Your task to perform on an android device: Clear all items from cart on walmart.com. Add "usb-a" to the cart on walmart.com, then select checkout. Image 0: 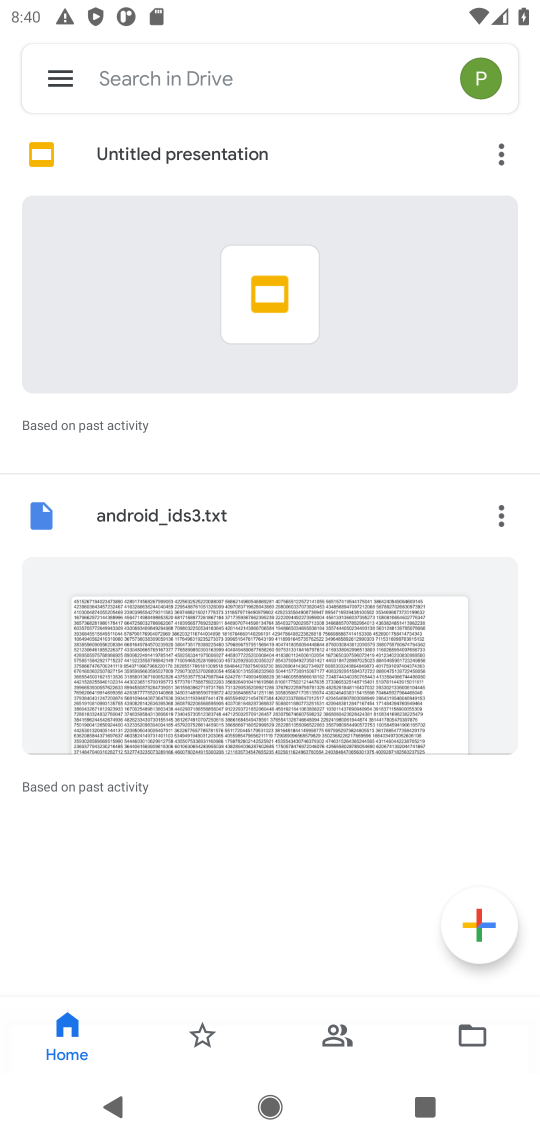
Step 0: press home button
Your task to perform on an android device: Clear all items from cart on walmart.com. Add "usb-a" to the cart on walmart.com, then select checkout. Image 1: 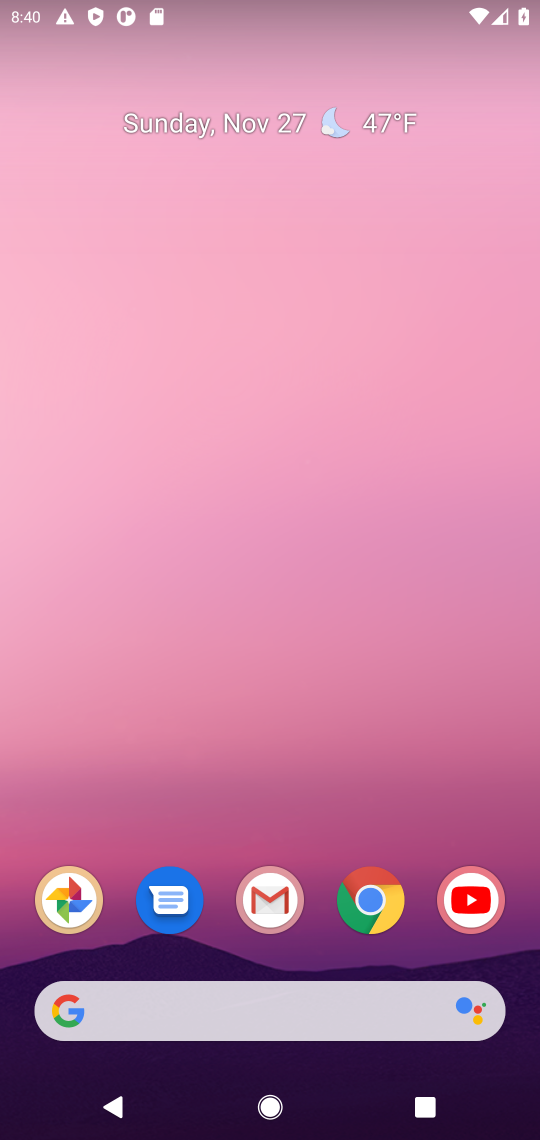
Step 1: click (368, 890)
Your task to perform on an android device: Clear all items from cart on walmart.com. Add "usb-a" to the cart on walmart.com, then select checkout. Image 2: 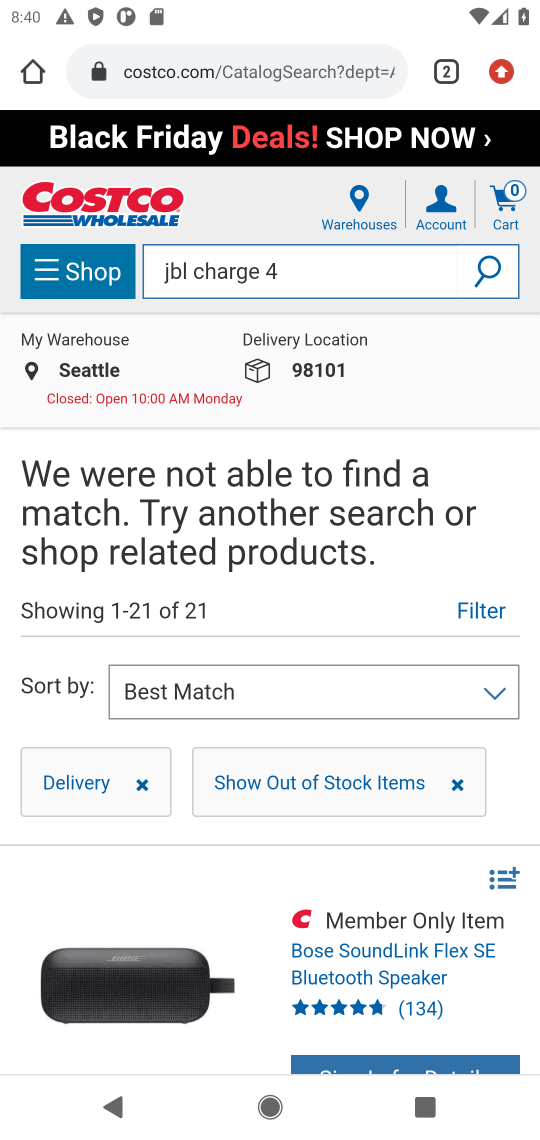
Step 2: click (198, 73)
Your task to perform on an android device: Clear all items from cart on walmart.com. Add "usb-a" to the cart on walmart.com, then select checkout. Image 3: 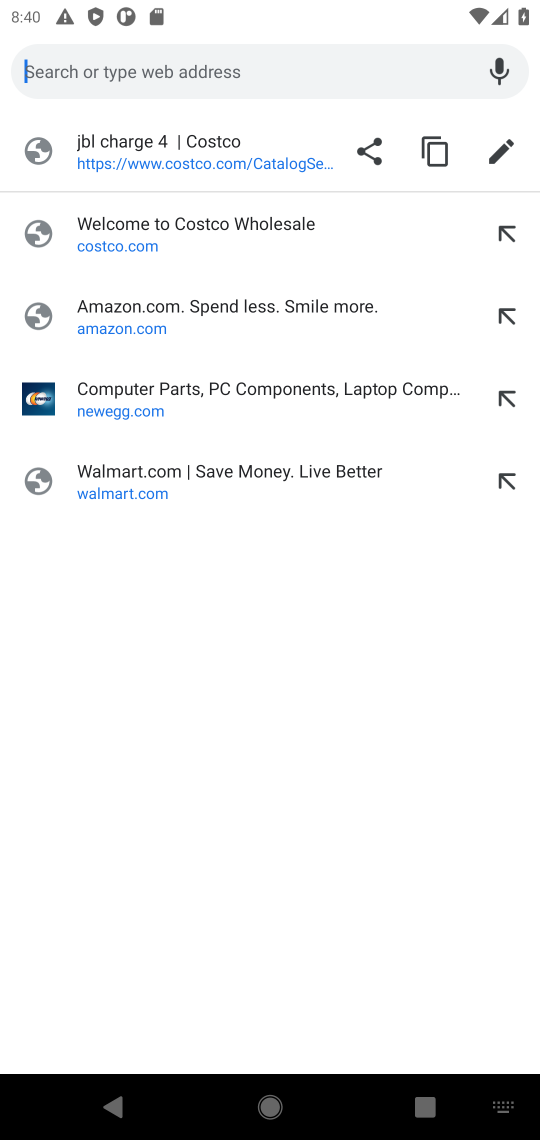
Step 3: click (132, 473)
Your task to perform on an android device: Clear all items from cart on walmart.com. Add "usb-a" to the cart on walmart.com, then select checkout. Image 4: 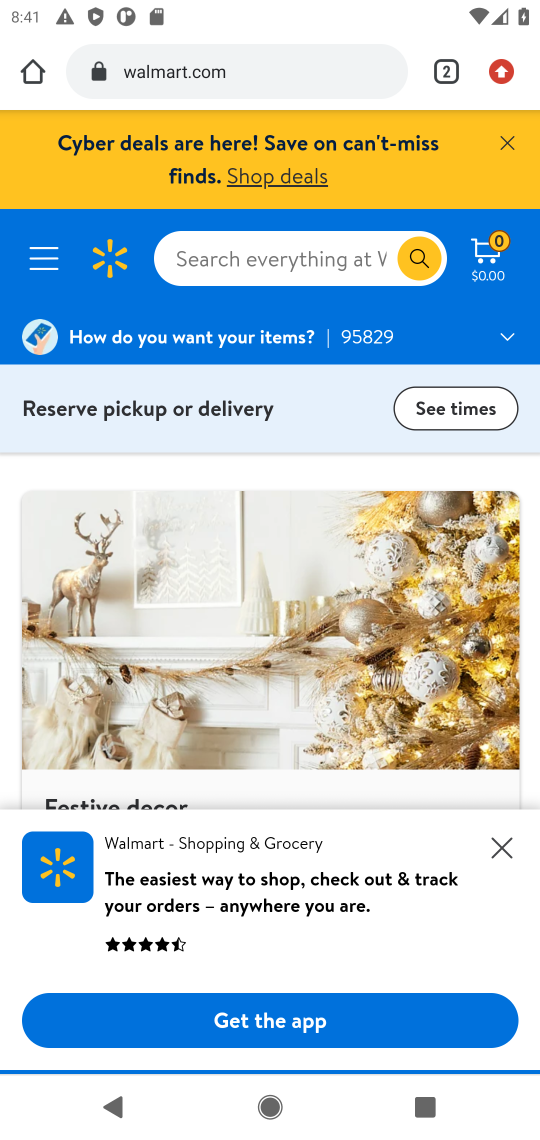
Step 4: click (486, 252)
Your task to perform on an android device: Clear all items from cart on walmart.com. Add "usb-a" to the cart on walmart.com, then select checkout. Image 5: 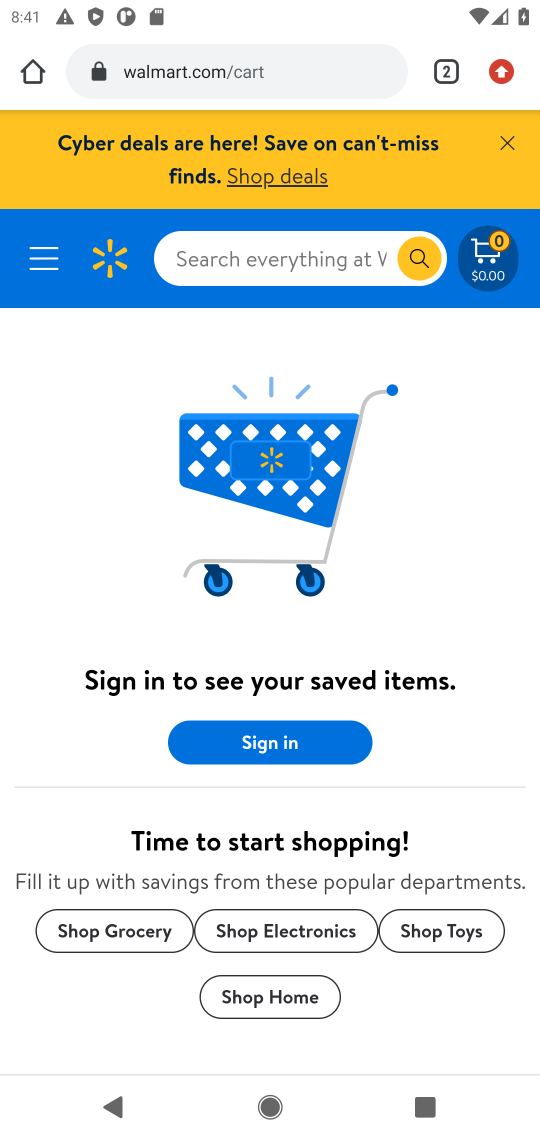
Step 5: drag from (431, 674) to (445, 551)
Your task to perform on an android device: Clear all items from cart on walmart.com. Add "usb-a" to the cart on walmart.com, then select checkout. Image 6: 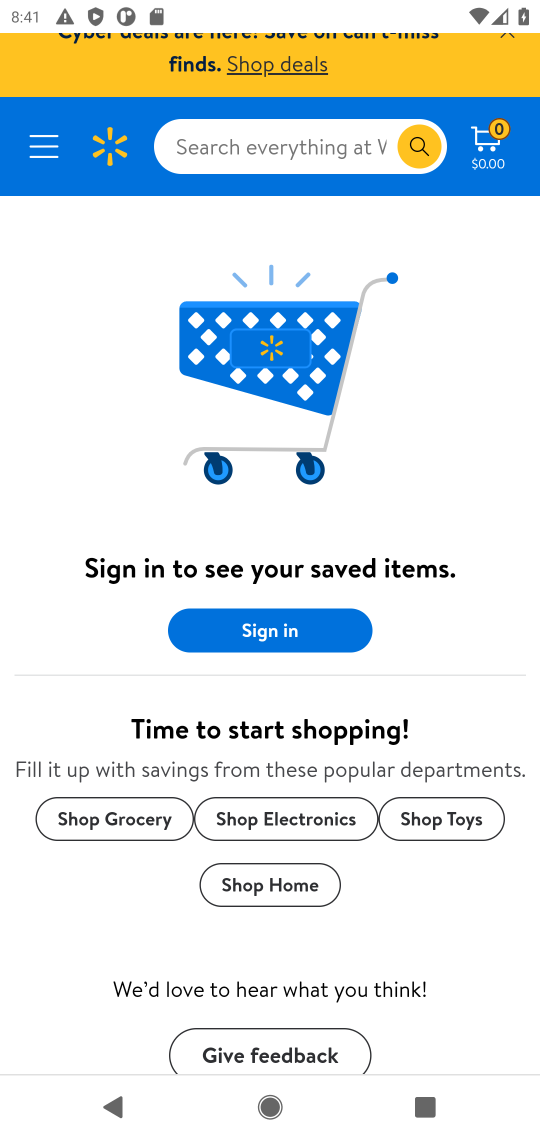
Step 6: click (249, 149)
Your task to perform on an android device: Clear all items from cart on walmart.com. Add "usb-a" to the cart on walmart.com, then select checkout. Image 7: 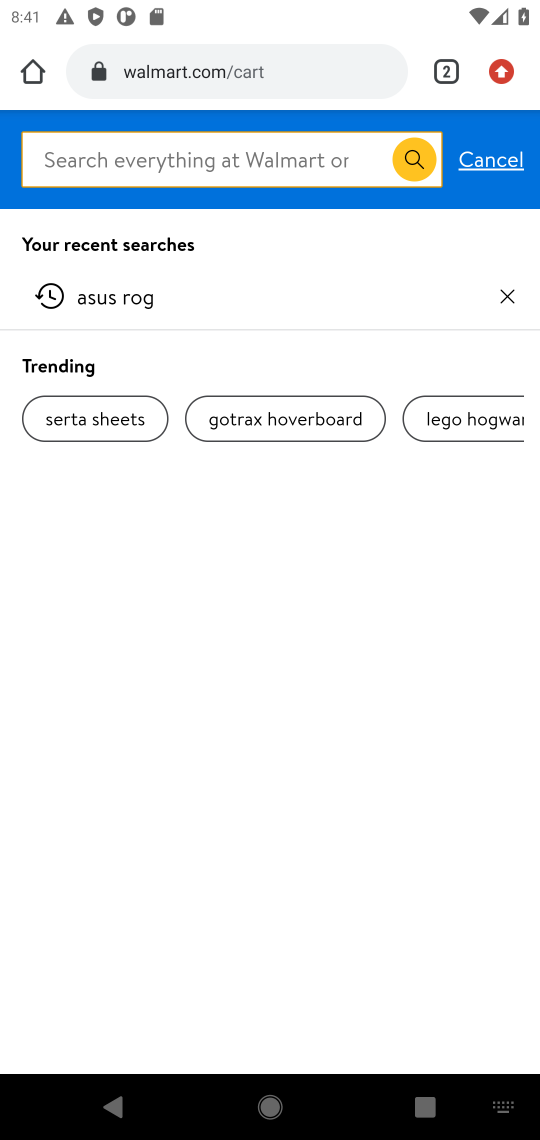
Step 7: type "usb-a"
Your task to perform on an android device: Clear all items from cart on walmart.com. Add "usb-a" to the cart on walmart.com, then select checkout. Image 8: 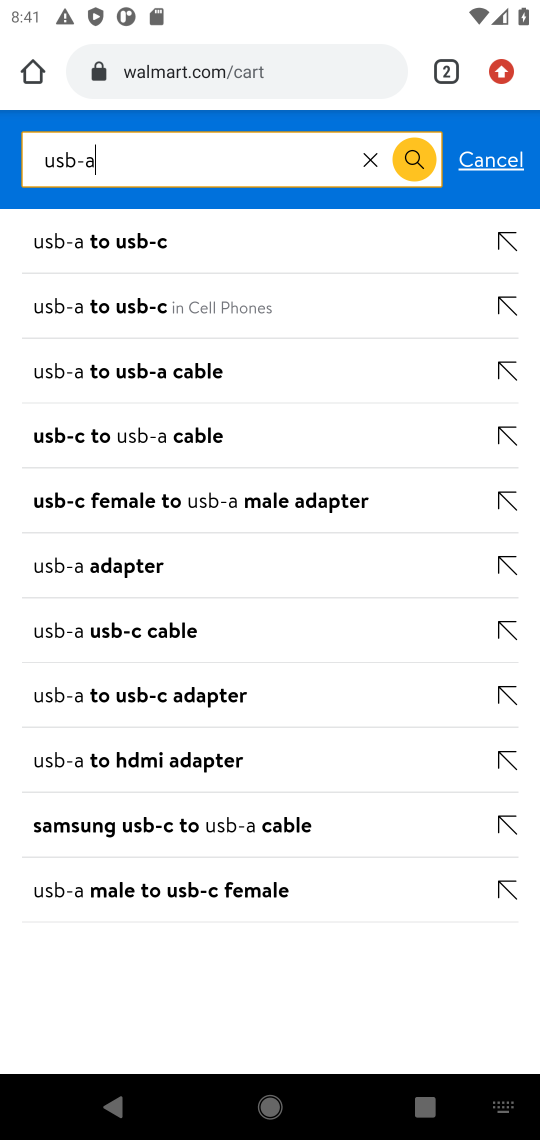
Step 8: click (418, 159)
Your task to perform on an android device: Clear all items from cart on walmart.com. Add "usb-a" to the cart on walmart.com, then select checkout. Image 9: 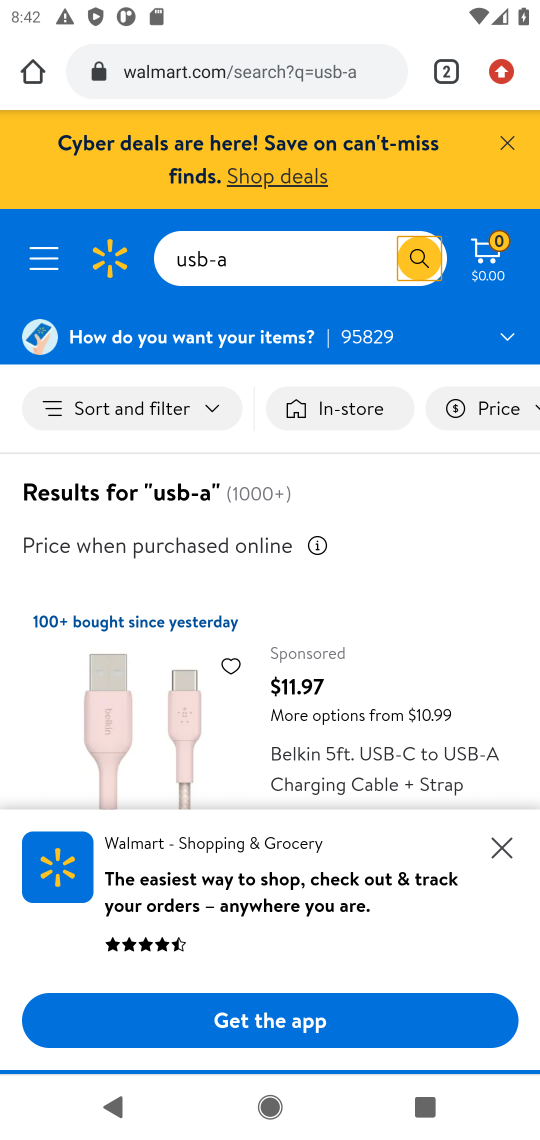
Step 9: drag from (185, 753) to (170, 400)
Your task to perform on an android device: Clear all items from cart on walmart.com. Add "usb-a" to the cart on walmart.com, then select checkout. Image 10: 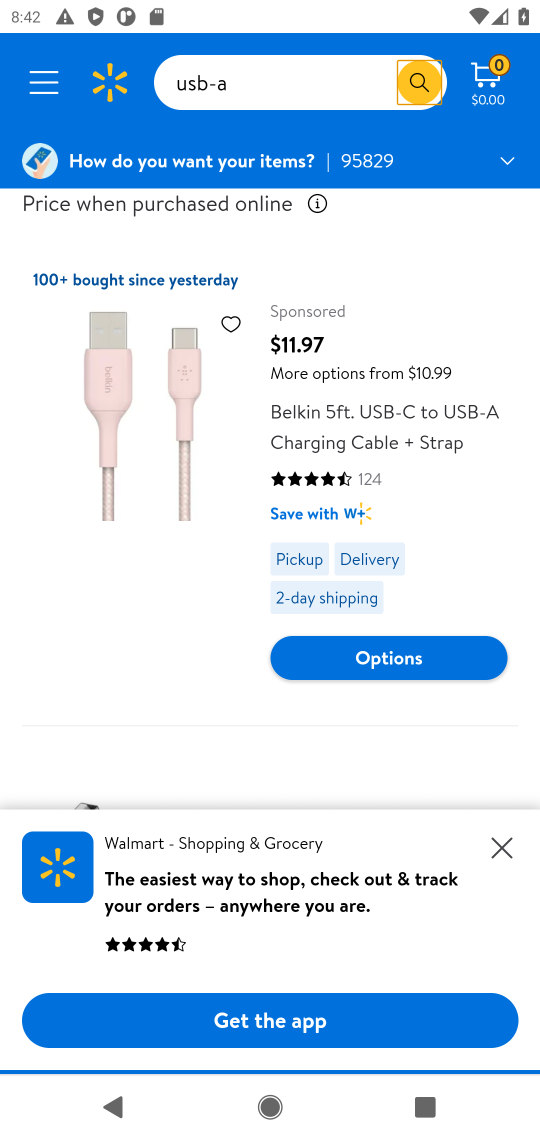
Step 10: click (206, 454)
Your task to perform on an android device: Clear all items from cart on walmart.com. Add "usb-a" to the cart on walmart.com, then select checkout. Image 11: 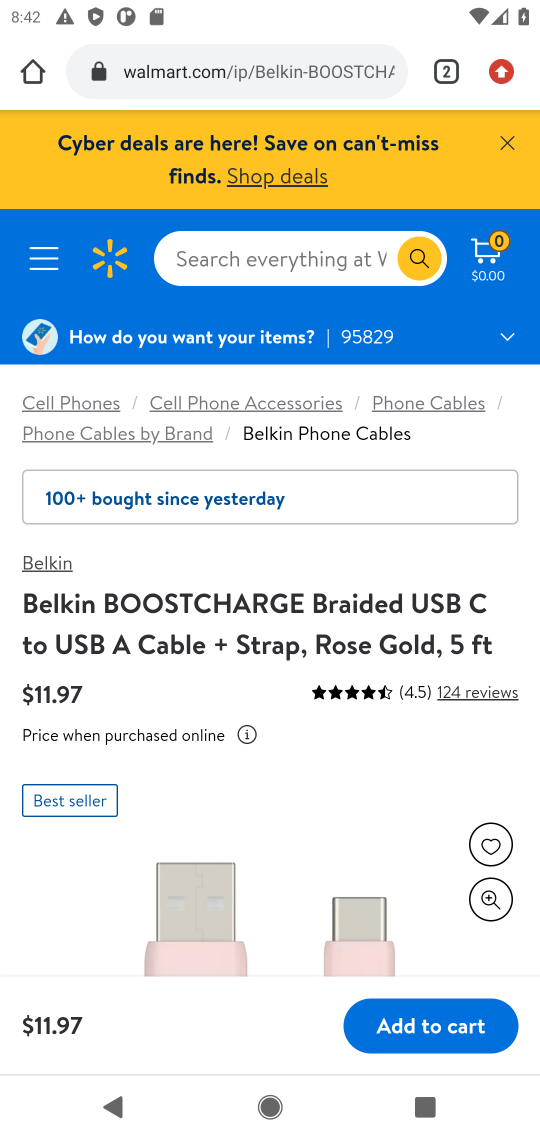
Step 11: drag from (253, 767) to (276, 370)
Your task to perform on an android device: Clear all items from cart on walmart.com. Add "usb-a" to the cart on walmart.com, then select checkout. Image 12: 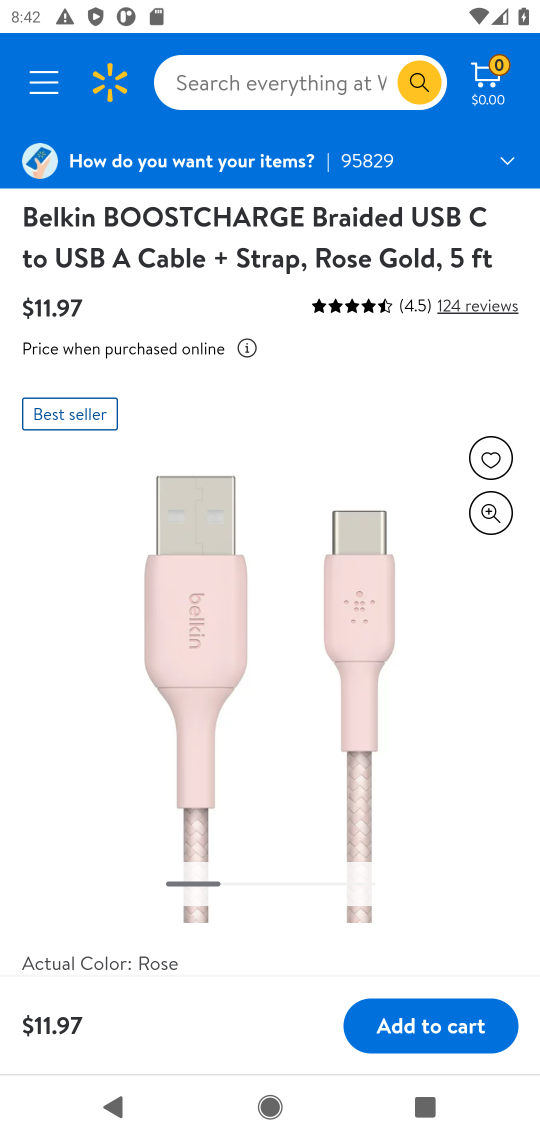
Step 12: click (453, 1024)
Your task to perform on an android device: Clear all items from cart on walmart.com. Add "usb-a" to the cart on walmart.com, then select checkout. Image 13: 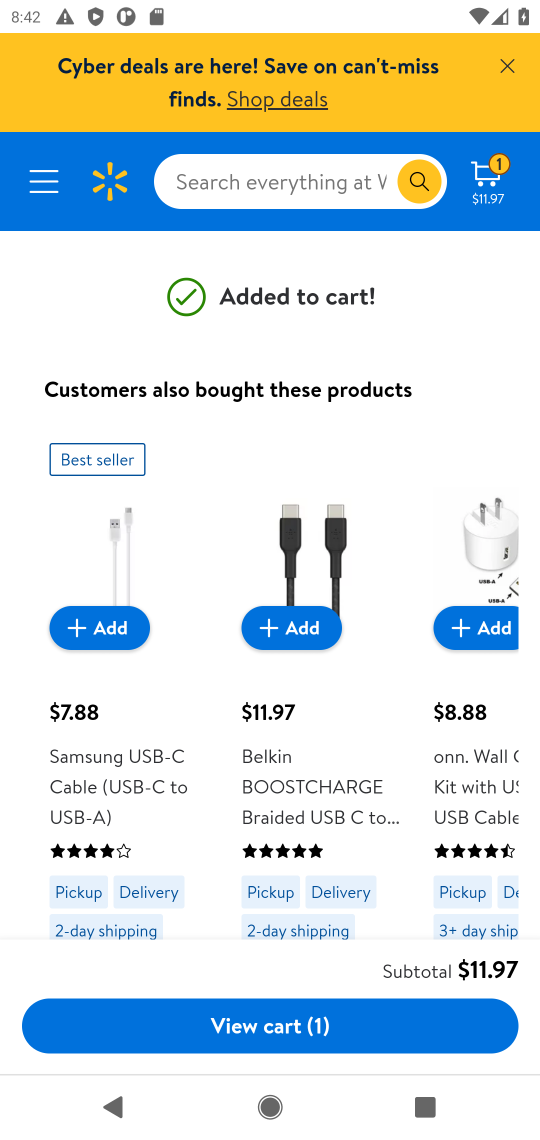
Step 13: click (265, 1028)
Your task to perform on an android device: Clear all items from cart on walmart.com. Add "usb-a" to the cart on walmart.com, then select checkout. Image 14: 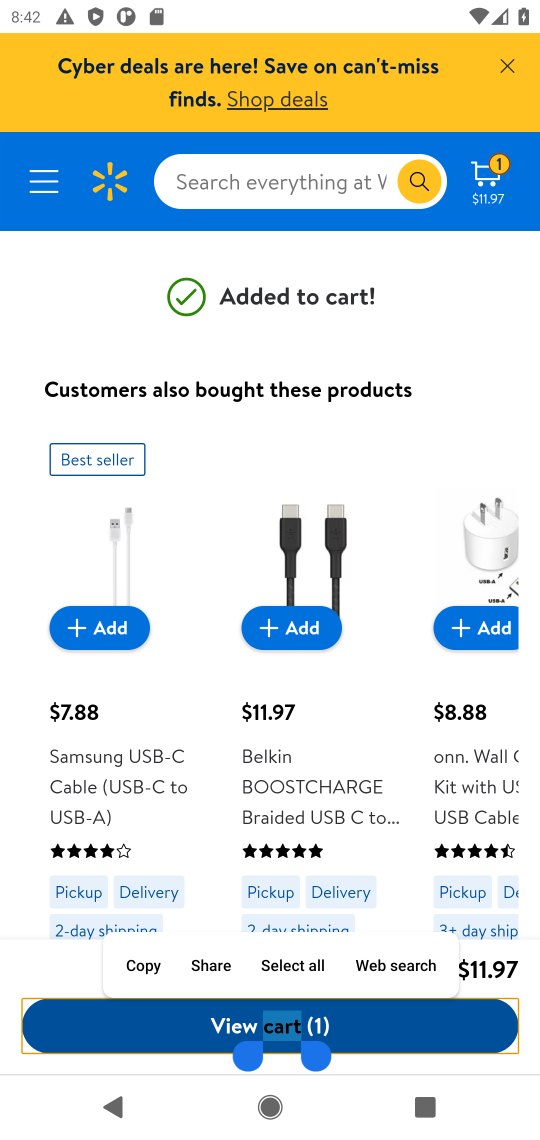
Step 14: click (248, 1025)
Your task to perform on an android device: Clear all items from cart on walmart.com. Add "usb-a" to the cart on walmart.com, then select checkout. Image 15: 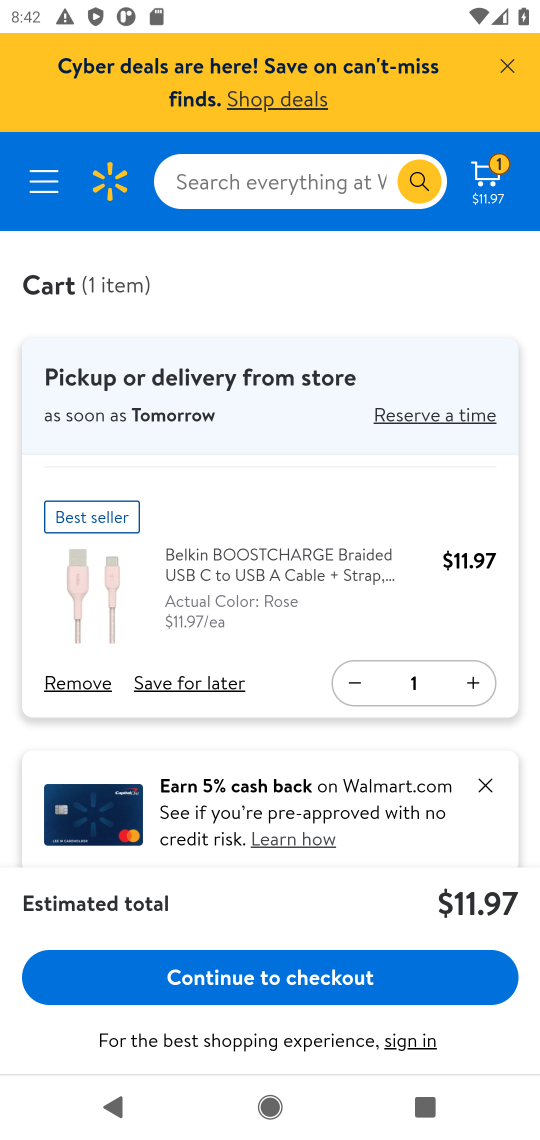
Step 15: click (265, 993)
Your task to perform on an android device: Clear all items from cart on walmart.com. Add "usb-a" to the cart on walmart.com, then select checkout. Image 16: 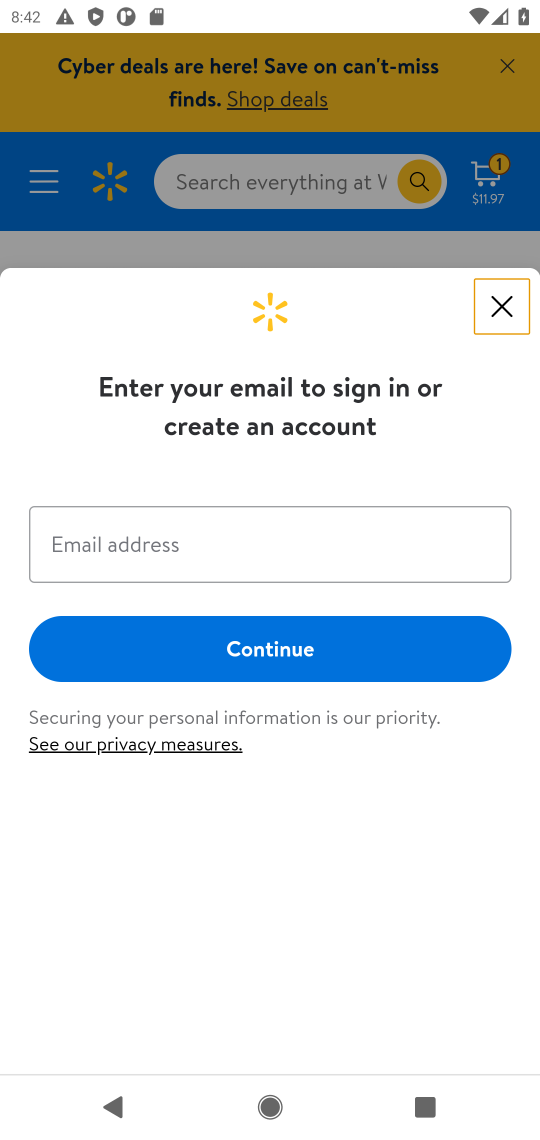
Step 16: task complete